Your task to perform on an android device: change notification settings in the gmail app Image 0: 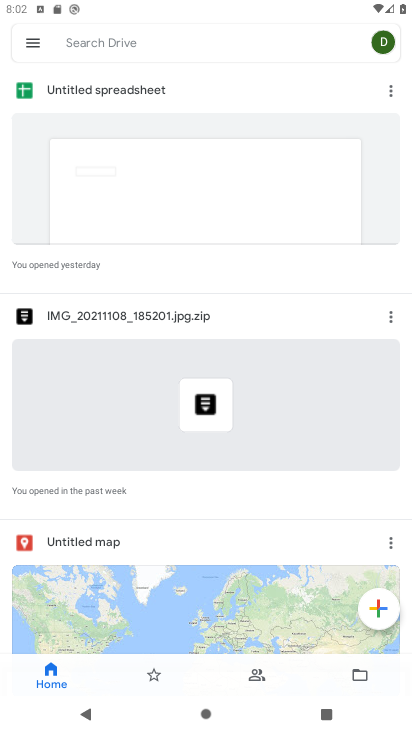
Step 0: press home button
Your task to perform on an android device: change notification settings in the gmail app Image 1: 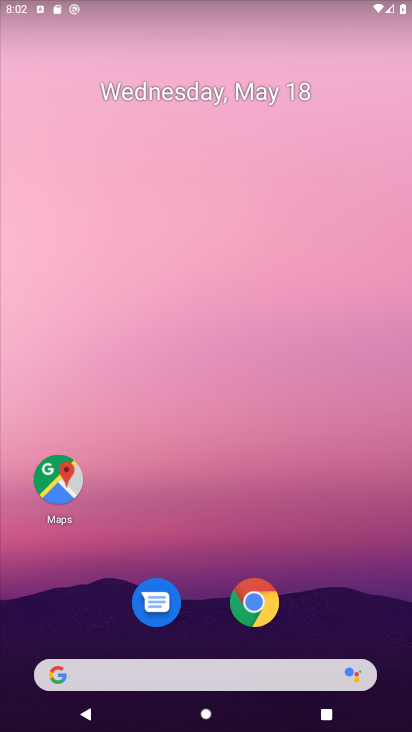
Step 1: drag from (212, 498) to (248, 43)
Your task to perform on an android device: change notification settings in the gmail app Image 2: 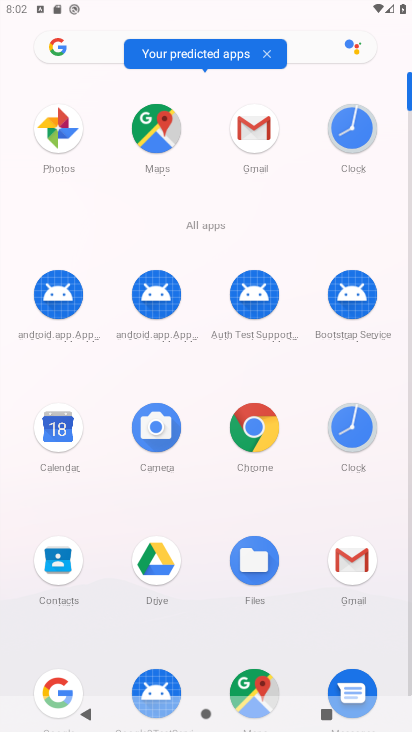
Step 2: click (245, 132)
Your task to perform on an android device: change notification settings in the gmail app Image 3: 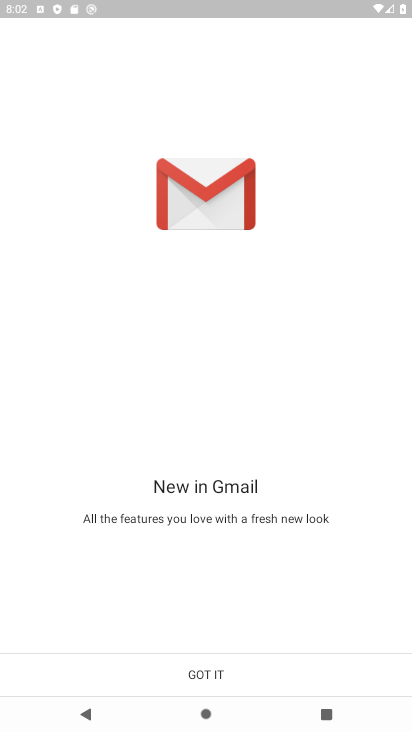
Step 3: click (214, 672)
Your task to perform on an android device: change notification settings in the gmail app Image 4: 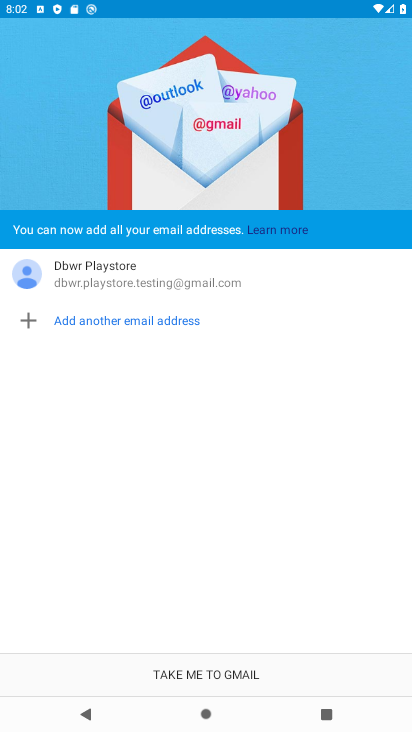
Step 4: click (261, 671)
Your task to perform on an android device: change notification settings in the gmail app Image 5: 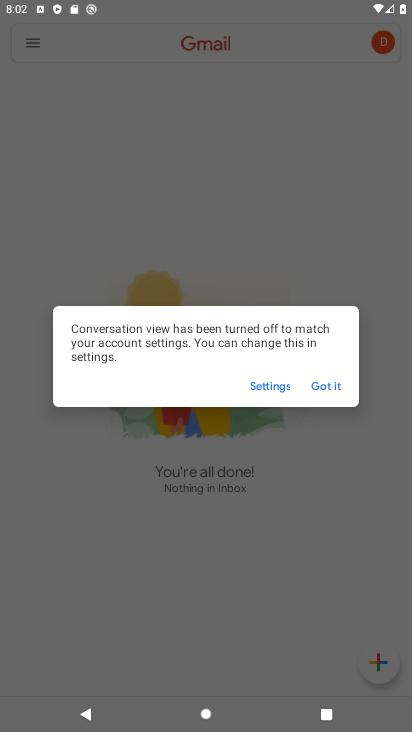
Step 5: click (326, 375)
Your task to perform on an android device: change notification settings in the gmail app Image 6: 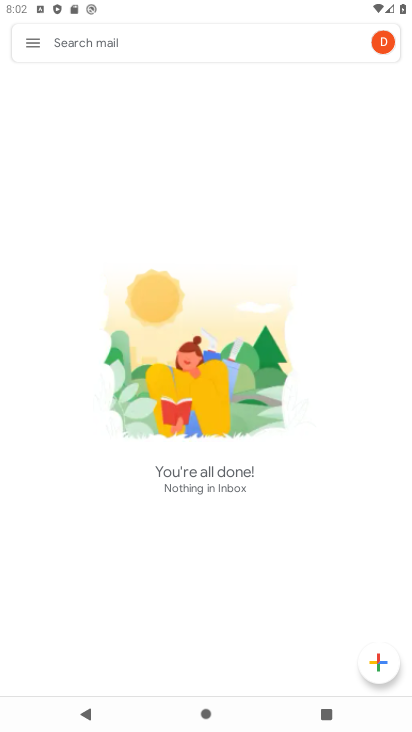
Step 6: click (34, 43)
Your task to perform on an android device: change notification settings in the gmail app Image 7: 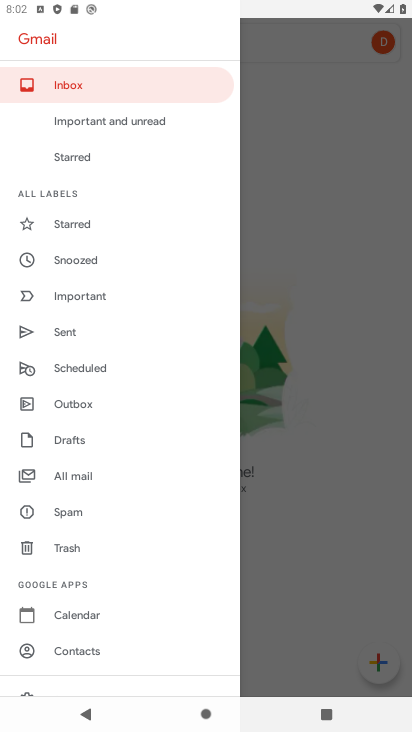
Step 7: drag from (118, 526) to (140, 342)
Your task to perform on an android device: change notification settings in the gmail app Image 8: 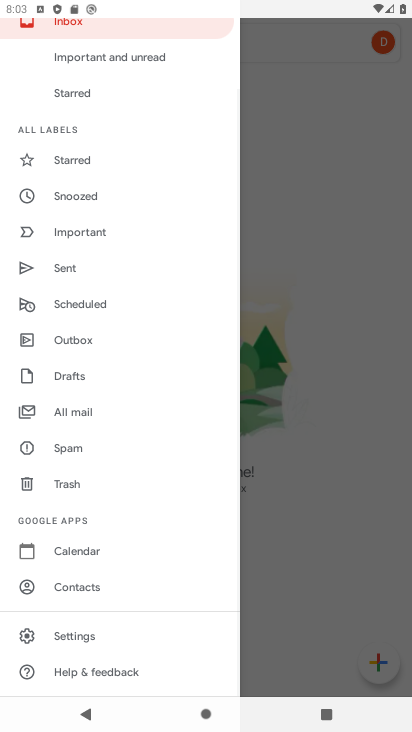
Step 8: click (84, 636)
Your task to perform on an android device: change notification settings in the gmail app Image 9: 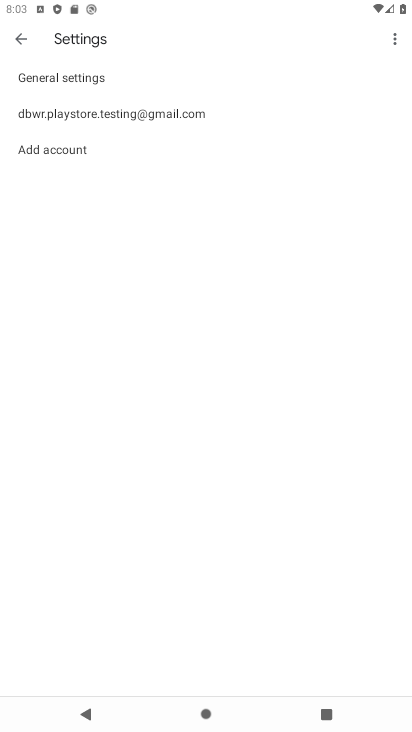
Step 9: click (90, 70)
Your task to perform on an android device: change notification settings in the gmail app Image 10: 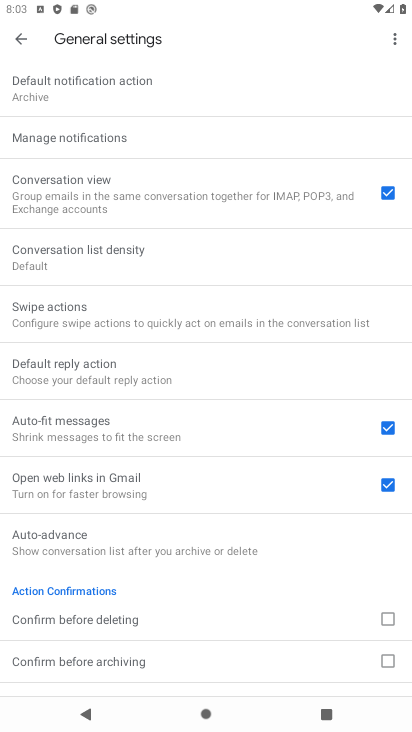
Step 10: click (162, 133)
Your task to perform on an android device: change notification settings in the gmail app Image 11: 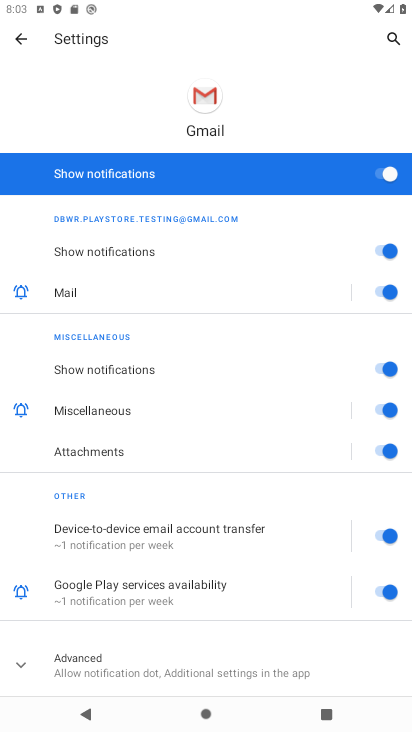
Step 11: click (380, 175)
Your task to perform on an android device: change notification settings in the gmail app Image 12: 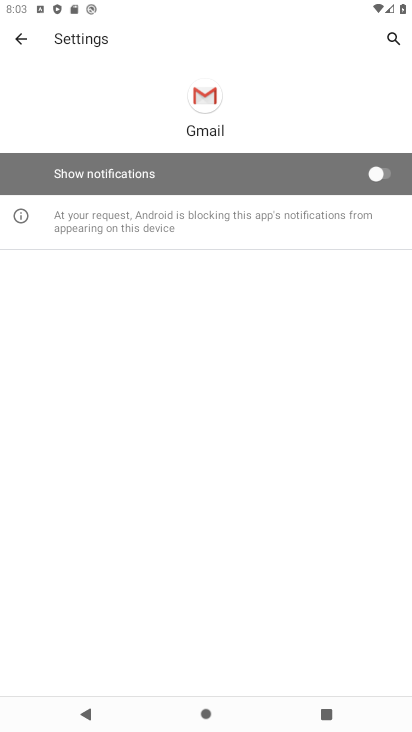
Step 12: task complete